Your task to perform on an android device: Open network settings Image 0: 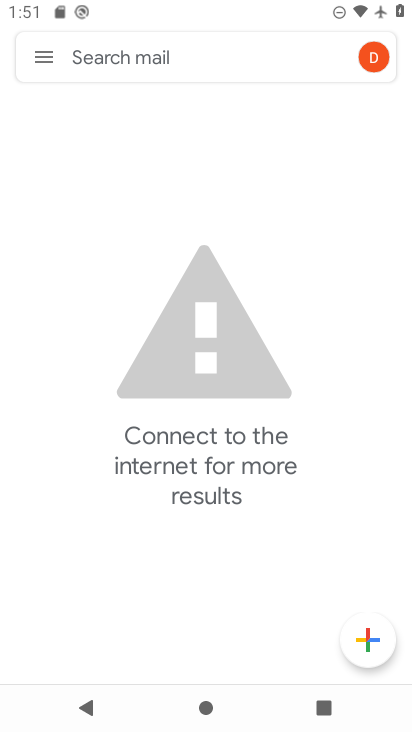
Step 0: press home button
Your task to perform on an android device: Open network settings Image 1: 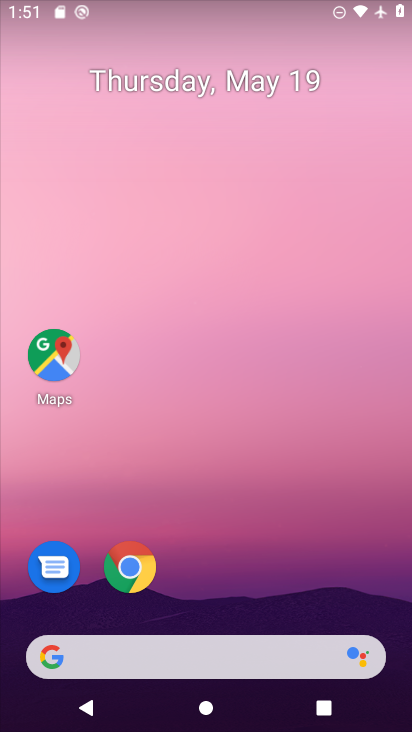
Step 1: drag from (251, 504) to (263, 56)
Your task to perform on an android device: Open network settings Image 2: 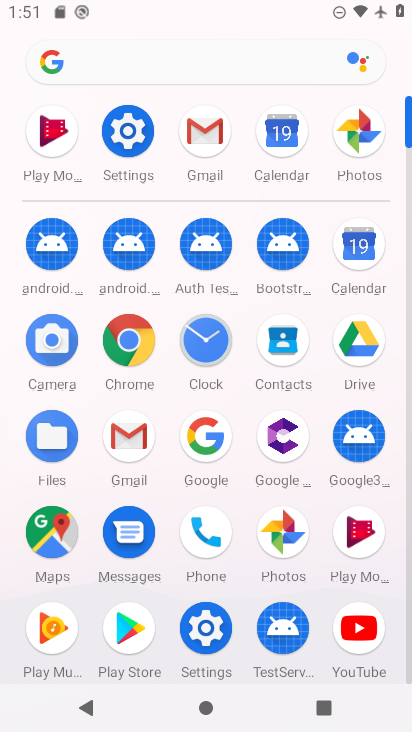
Step 2: click (127, 137)
Your task to perform on an android device: Open network settings Image 3: 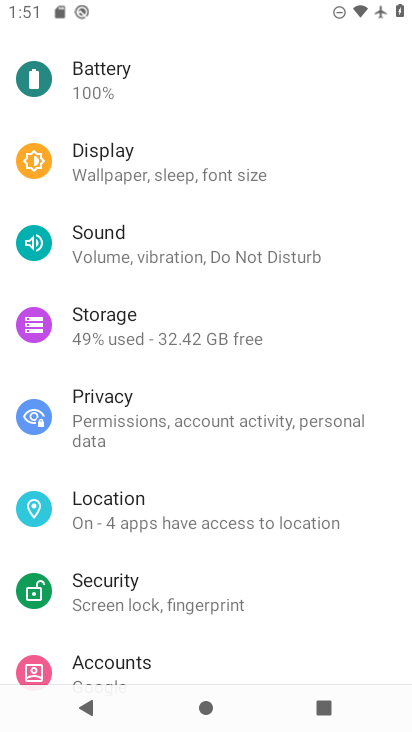
Step 3: drag from (195, 233) to (232, 662)
Your task to perform on an android device: Open network settings Image 4: 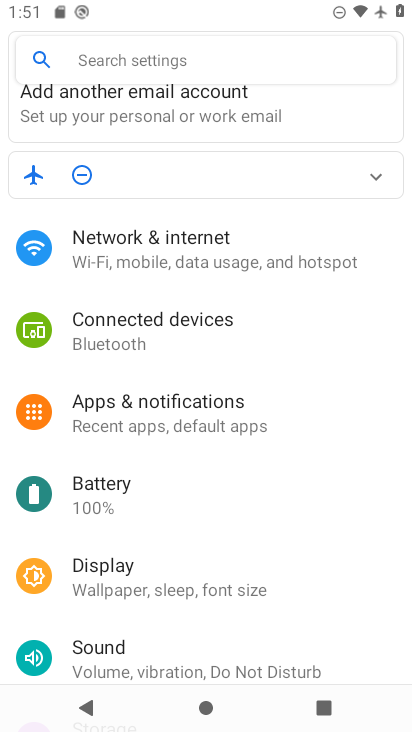
Step 4: click (224, 252)
Your task to perform on an android device: Open network settings Image 5: 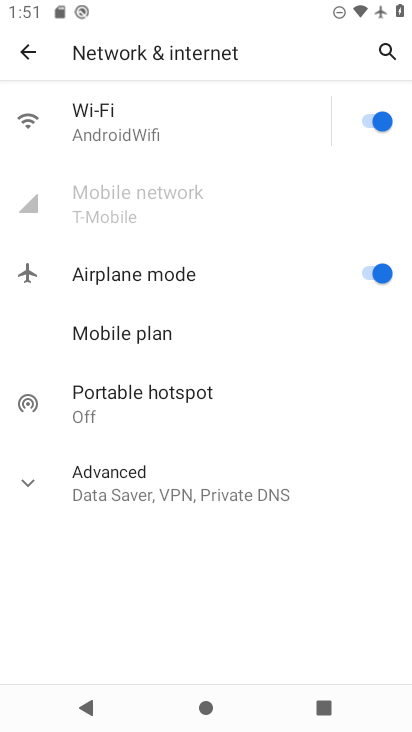
Step 5: task complete